Your task to perform on an android device: open app "Lyft - Rideshare, Bikes, Scooters & Transit" Image 0: 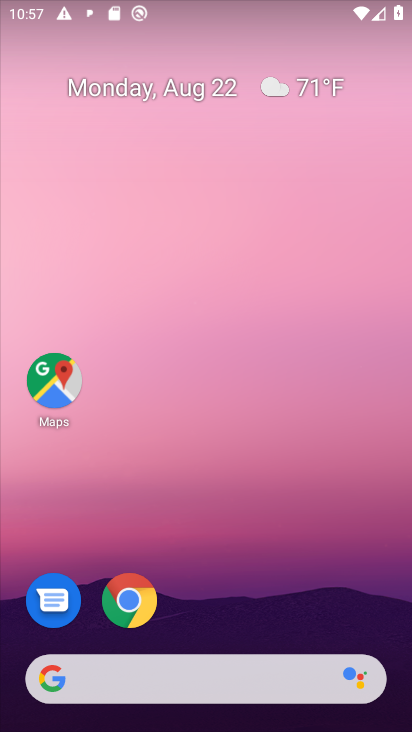
Step 0: drag from (217, 586) to (311, 26)
Your task to perform on an android device: open app "Lyft - Rideshare, Bikes, Scooters & Transit" Image 1: 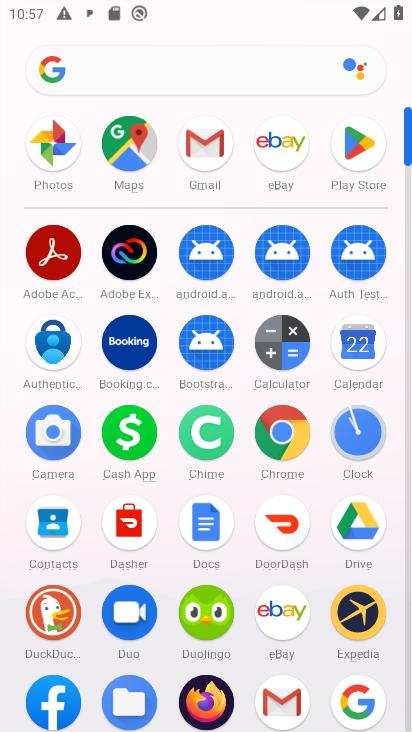
Step 1: click (345, 180)
Your task to perform on an android device: open app "Lyft - Rideshare, Bikes, Scooters & Transit" Image 2: 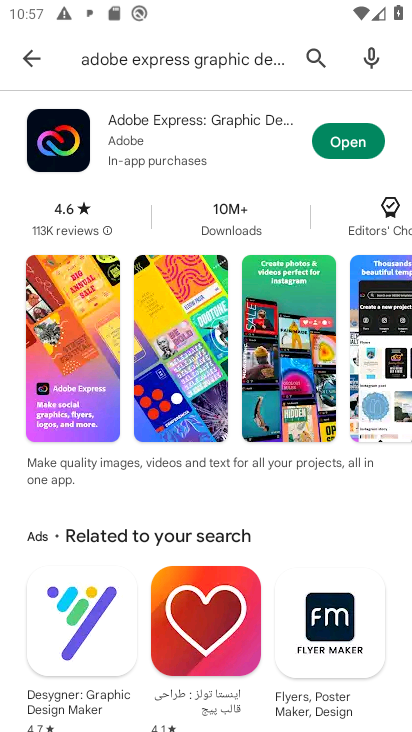
Step 2: click (302, 55)
Your task to perform on an android device: open app "Lyft - Rideshare, Bikes, Scooters & Transit" Image 3: 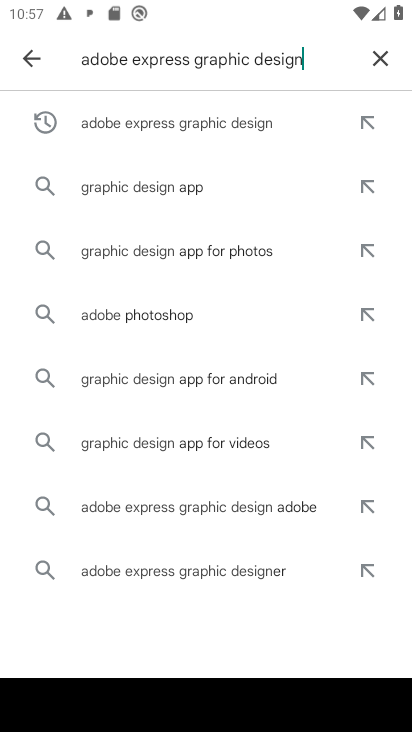
Step 3: click (376, 47)
Your task to perform on an android device: open app "Lyft - Rideshare, Bikes, Scooters & Transit" Image 4: 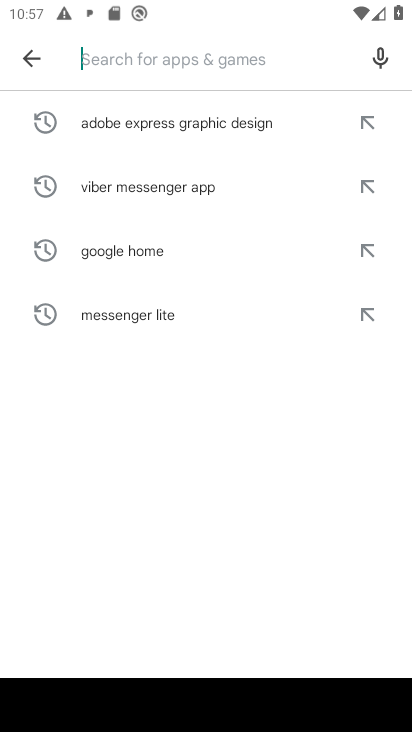
Step 4: type "Lyft"
Your task to perform on an android device: open app "Lyft - Rideshare, Bikes, Scooters & Transit" Image 5: 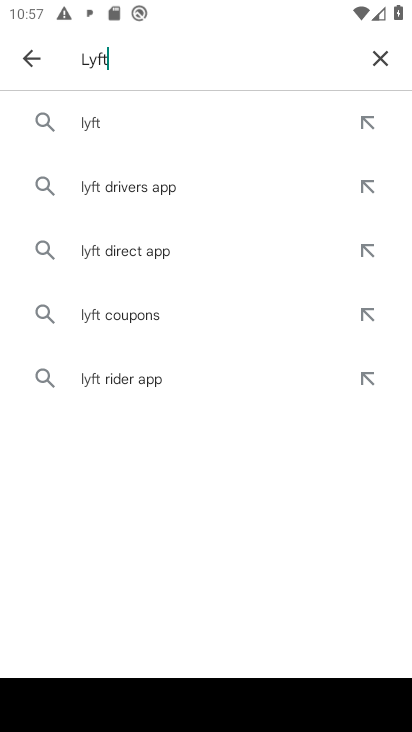
Step 5: type ""
Your task to perform on an android device: open app "Lyft - Rideshare, Bikes, Scooters & Transit" Image 6: 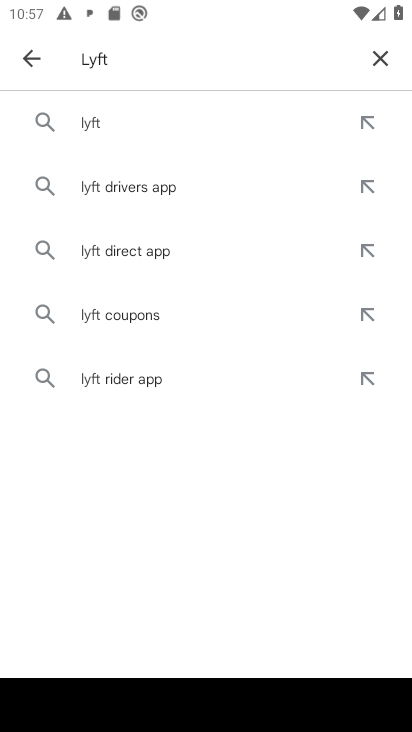
Step 6: click (134, 116)
Your task to perform on an android device: open app "Lyft - Rideshare, Bikes, Scooters & Transit" Image 7: 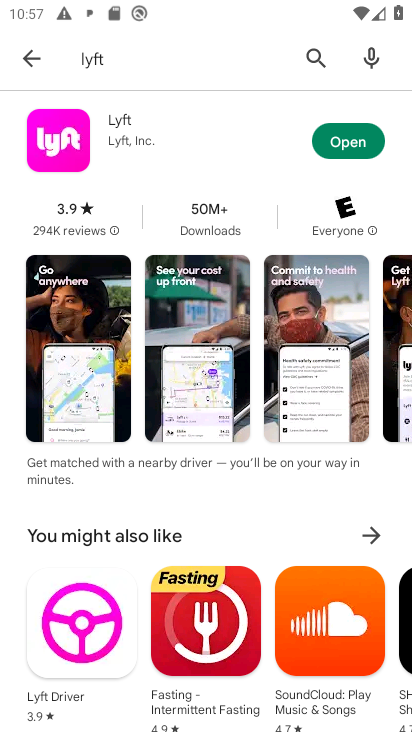
Step 7: click (337, 120)
Your task to perform on an android device: open app "Lyft - Rideshare, Bikes, Scooters & Transit" Image 8: 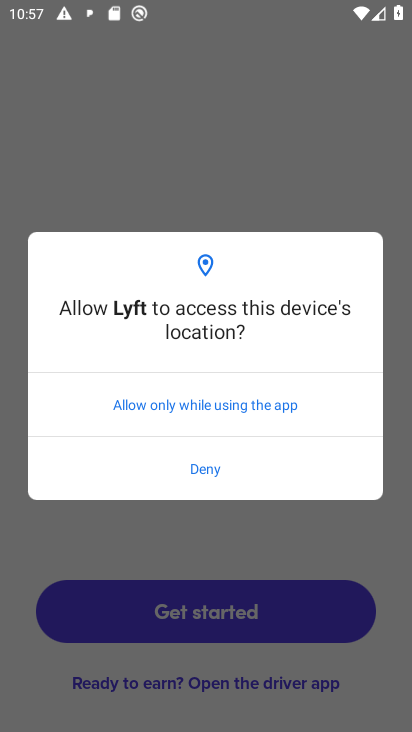
Step 8: task complete